Your task to perform on an android device: Go to location settings Image 0: 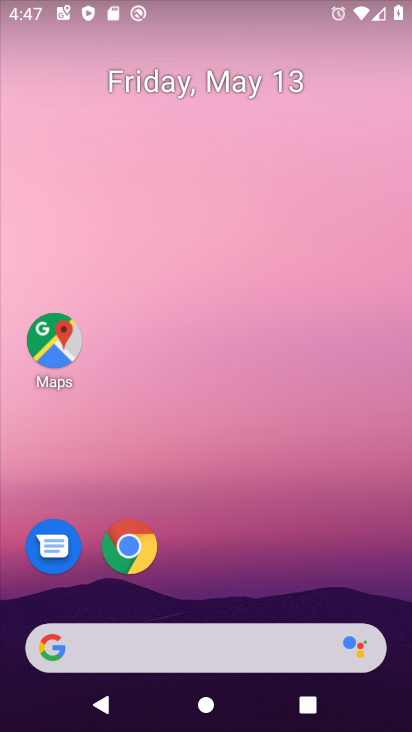
Step 0: drag from (220, 586) to (335, 2)
Your task to perform on an android device: Go to location settings Image 1: 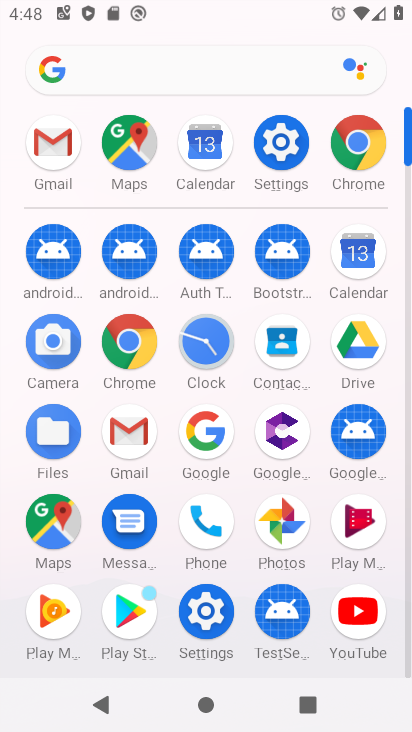
Step 1: click (197, 628)
Your task to perform on an android device: Go to location settings Image 2: 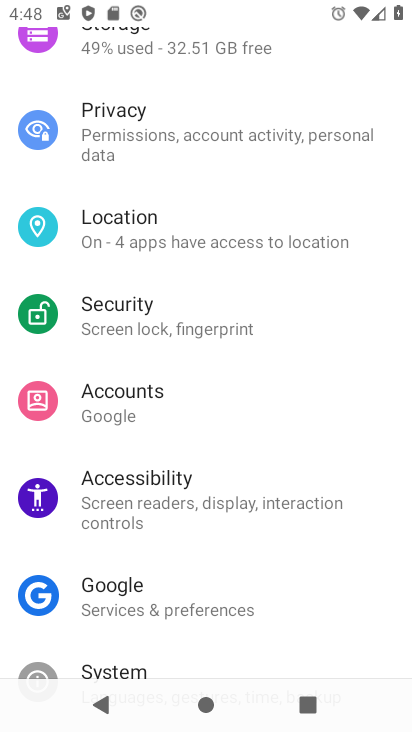
Step 2: click (191, 249)
Your task to perform on an android device: Go to location settings Image 3: 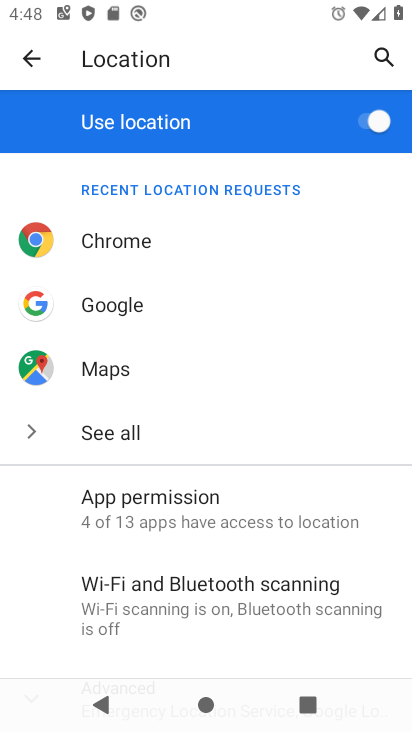
Step 3: task complete